Your task to perform on an android device: What's the weather? Image 0: 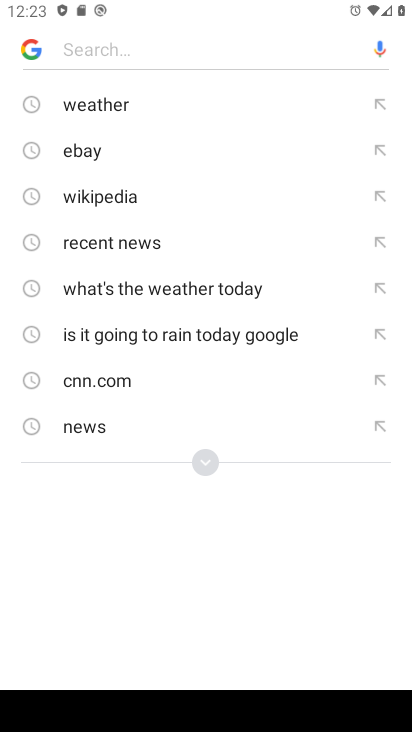
Step 0: press home button
Your task to perform on an android device: What's the weather? Image 1: 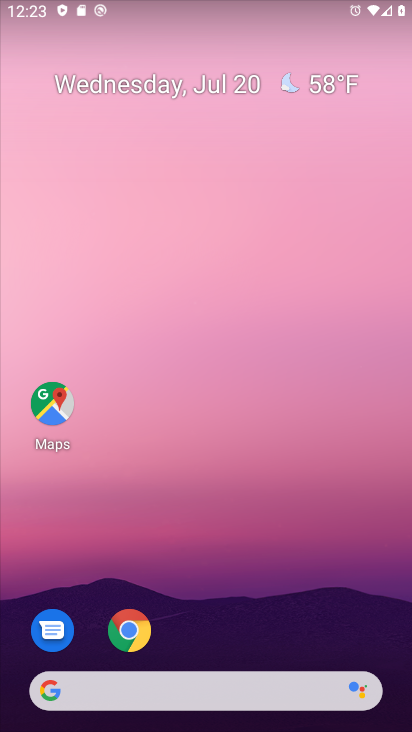
Step 1: click (146, 690)
Your task to perform on an android device: What's the weather? Image 2: 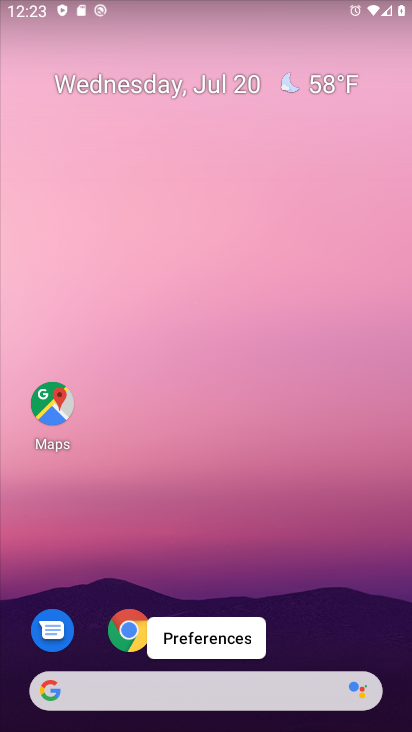
Step 2: click (158, 694)
Your task to perform on an android device: What's the weather? Image 3: 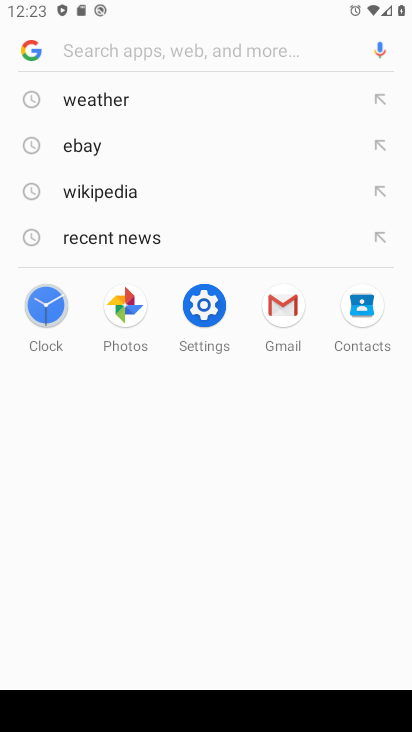
Step 3: click (102, 100)
Your task to perform on an android device: What's the weather? Image 4: 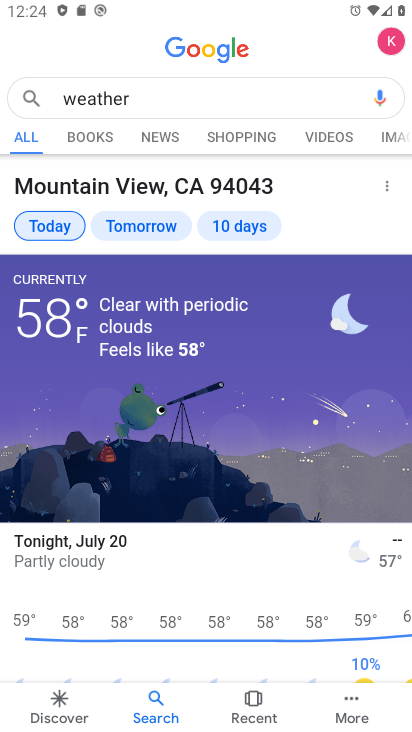
Step 4: task complete